Your task to perform on an android device: Clear all items from cart on costco. Image 0: 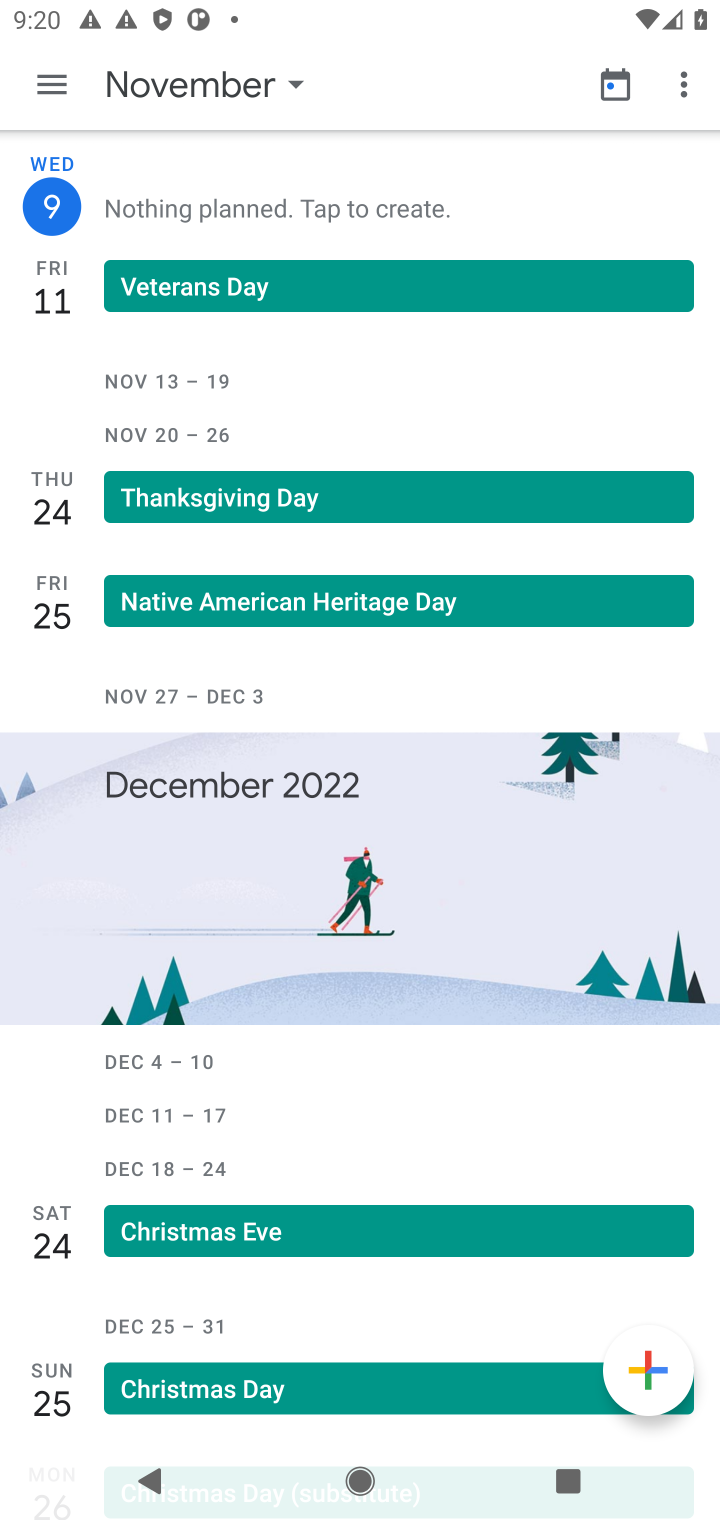
Step 0: press home button
Your task to perform on an android device: Clear all items from cart on costco. Image 1: 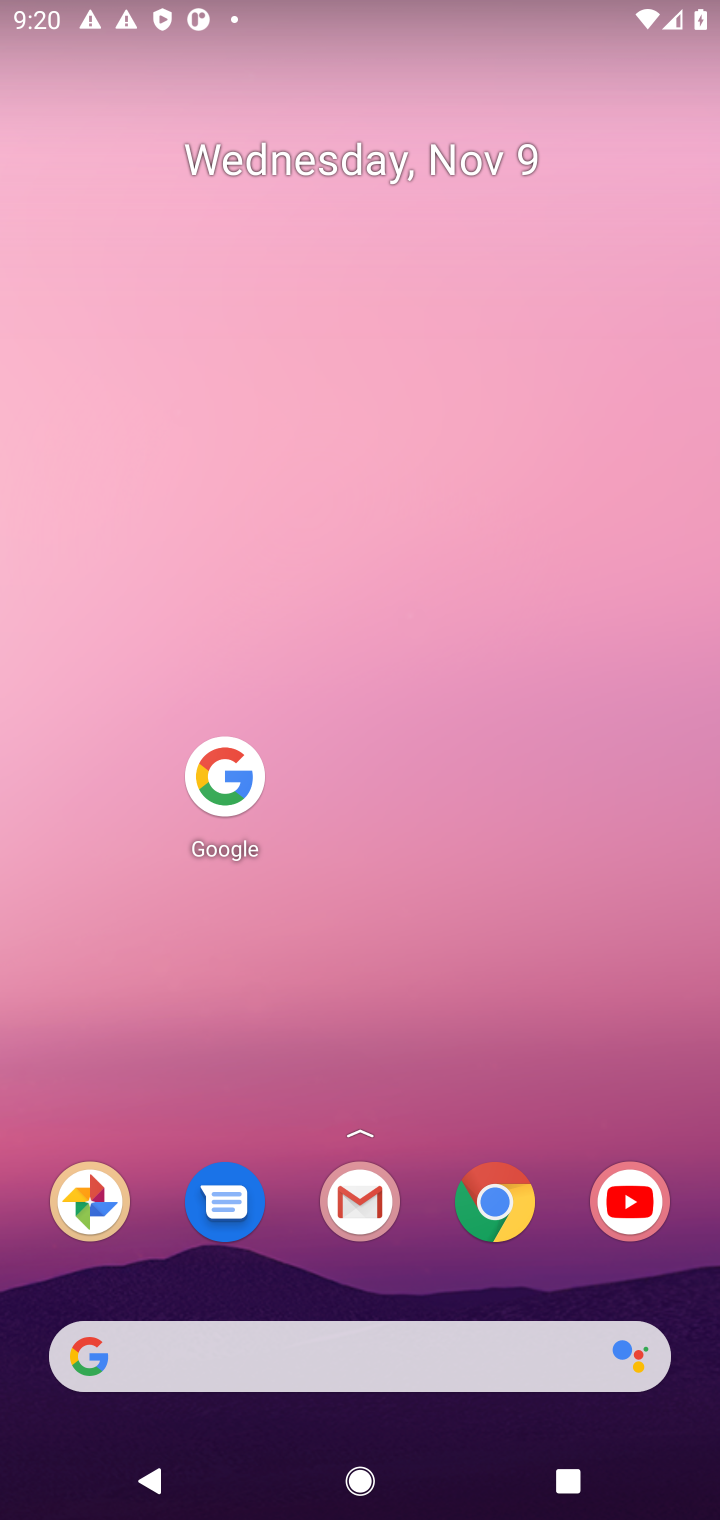
Step 1: click (234, 774)
Your task to perform on an android device: Clear all items from cart on costco. Image 2: 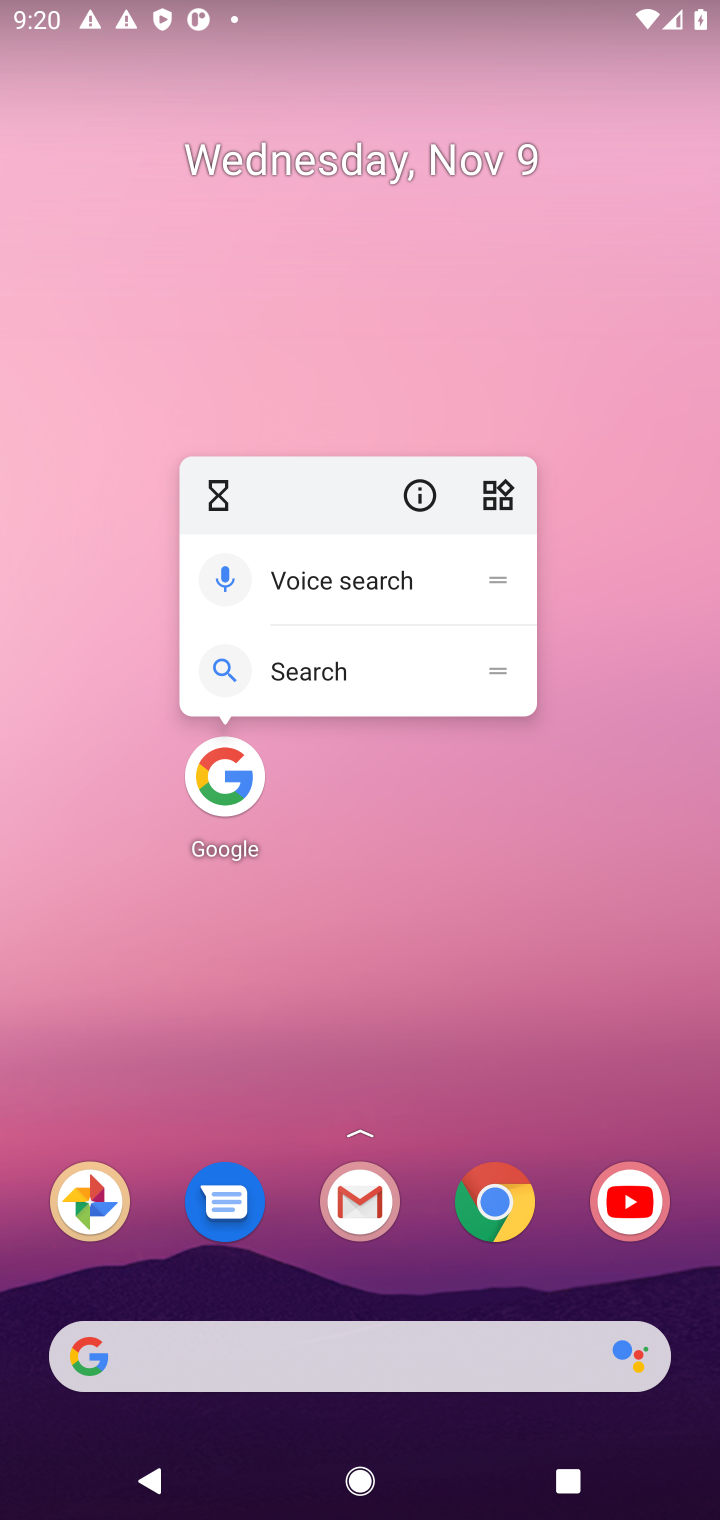
Step 2: click (213, 795)
Your task to perform on an android device: Clear all items from cart on costco. Image 3: 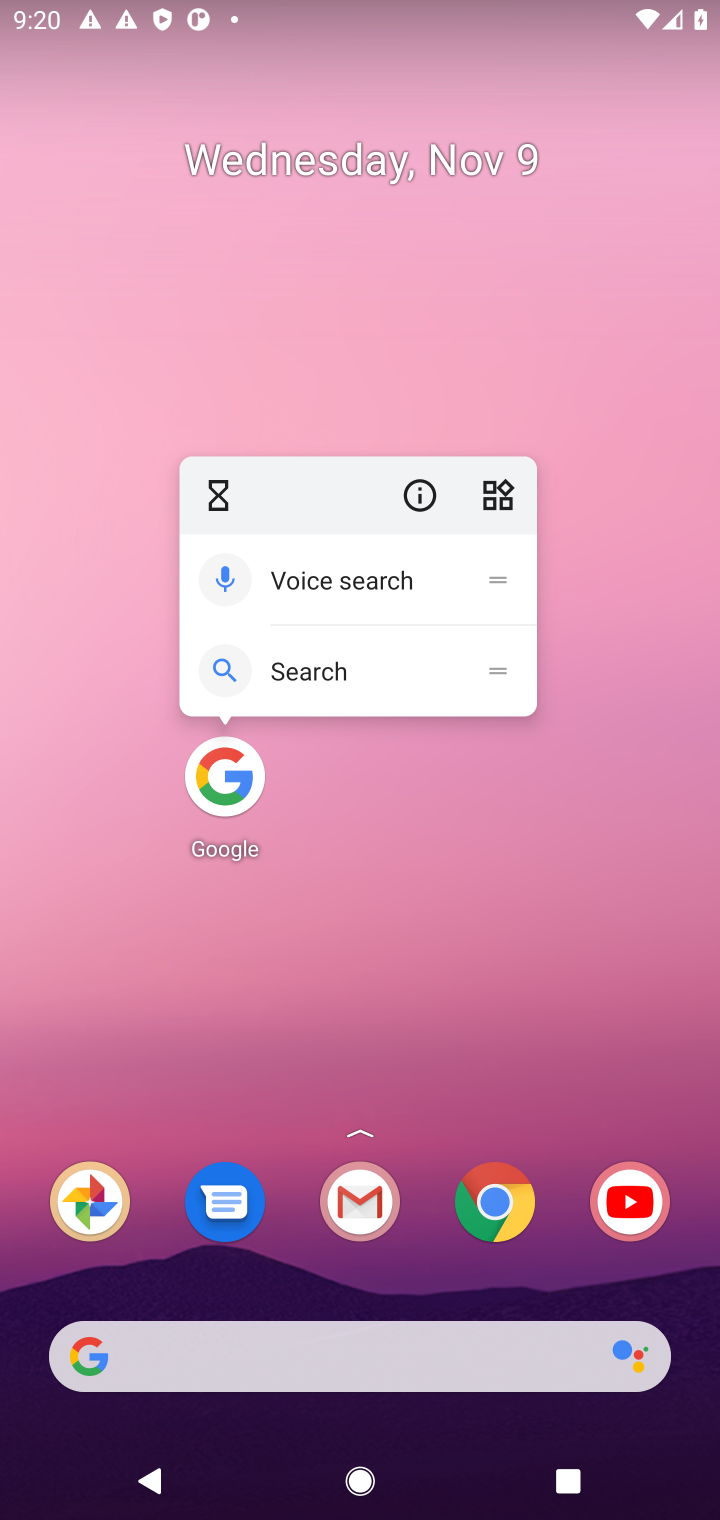
Step 3: click (213, 797)
Your task to perform on an android device: Clear all items from cart on costco. Image 4: 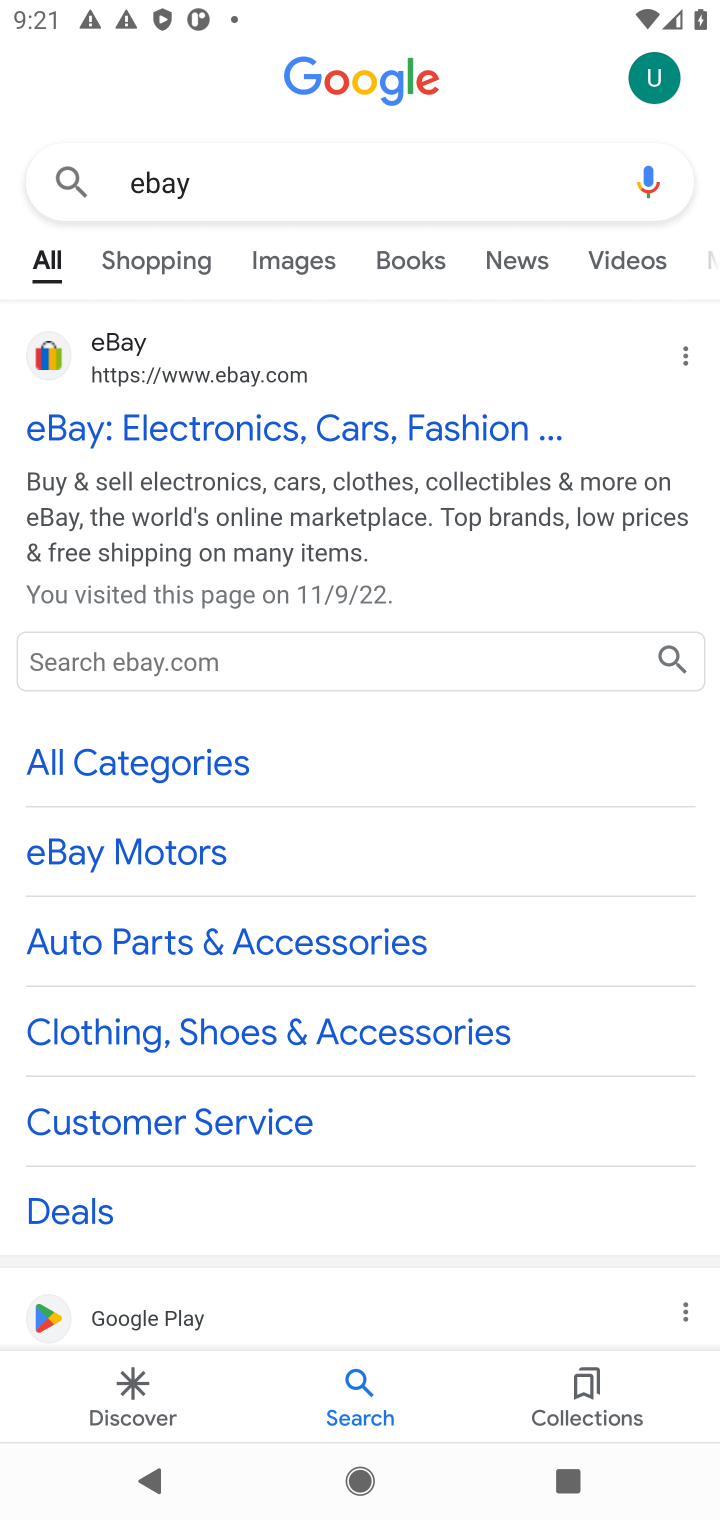
Step 4: click (262, 186)
Your task to perform on an android device: Clear all items from cart on costco. Image 5: 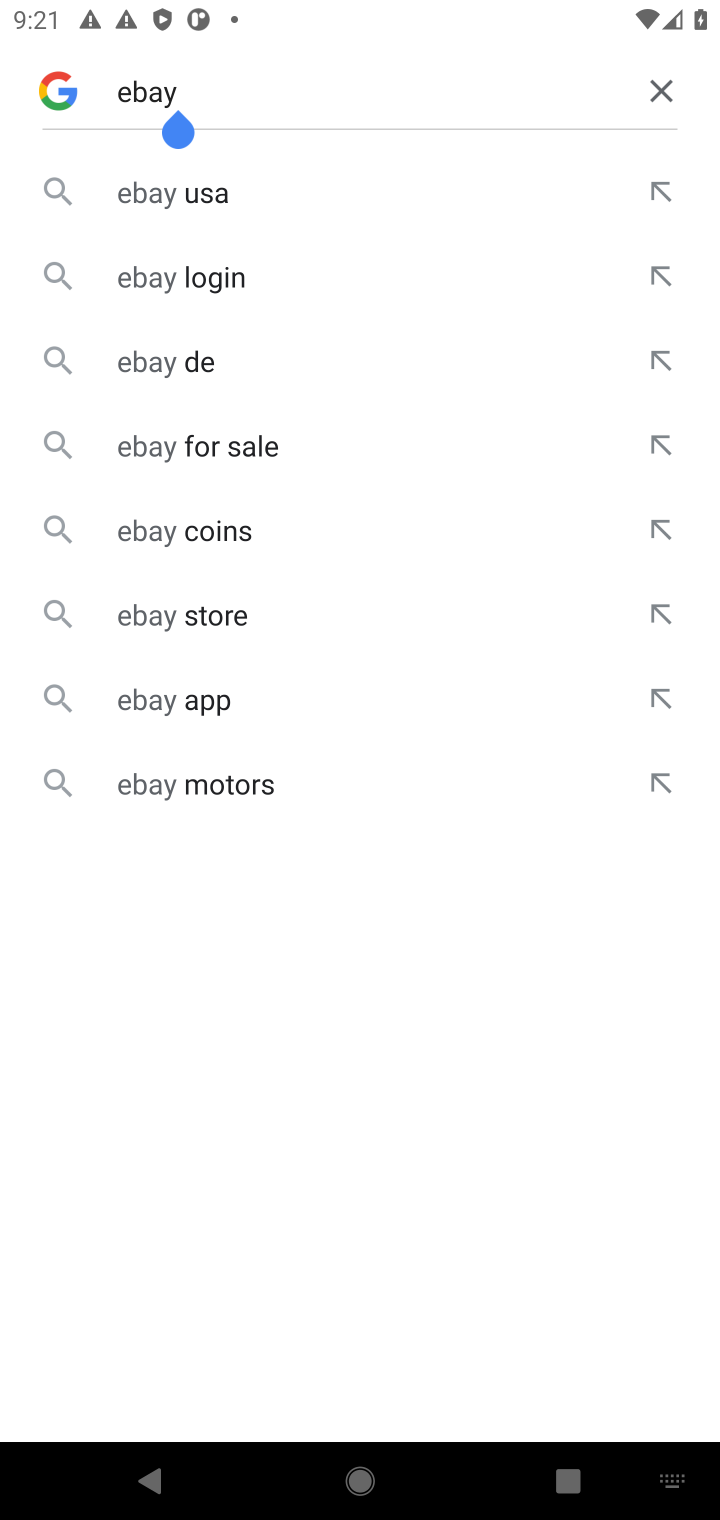
Step 5: click (654, 88)
Your task to perform on an android device: Clear all items from cart on costco. Image 6: 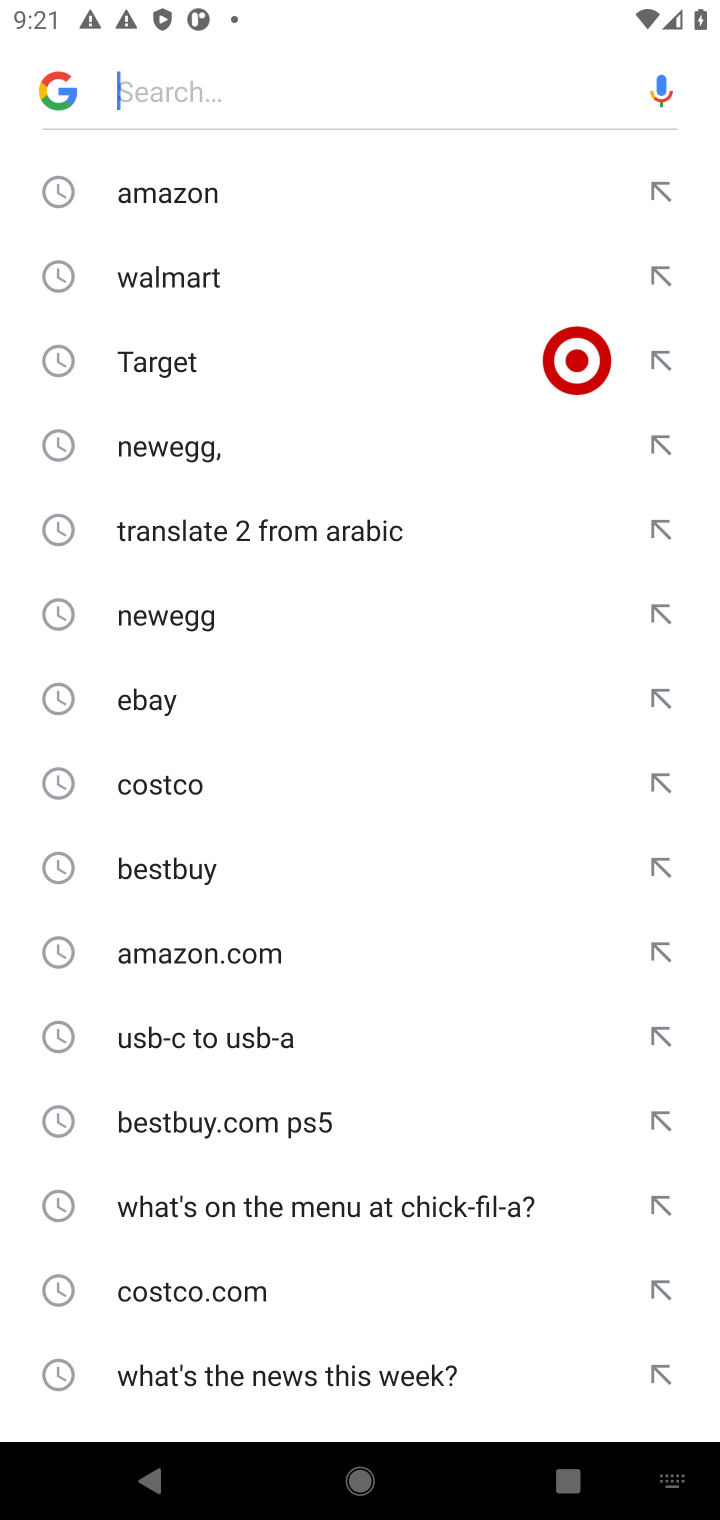
Step 6: click (138, 775)
Your task to perform on an android device: Clear all items from cart on costco. Image 7: 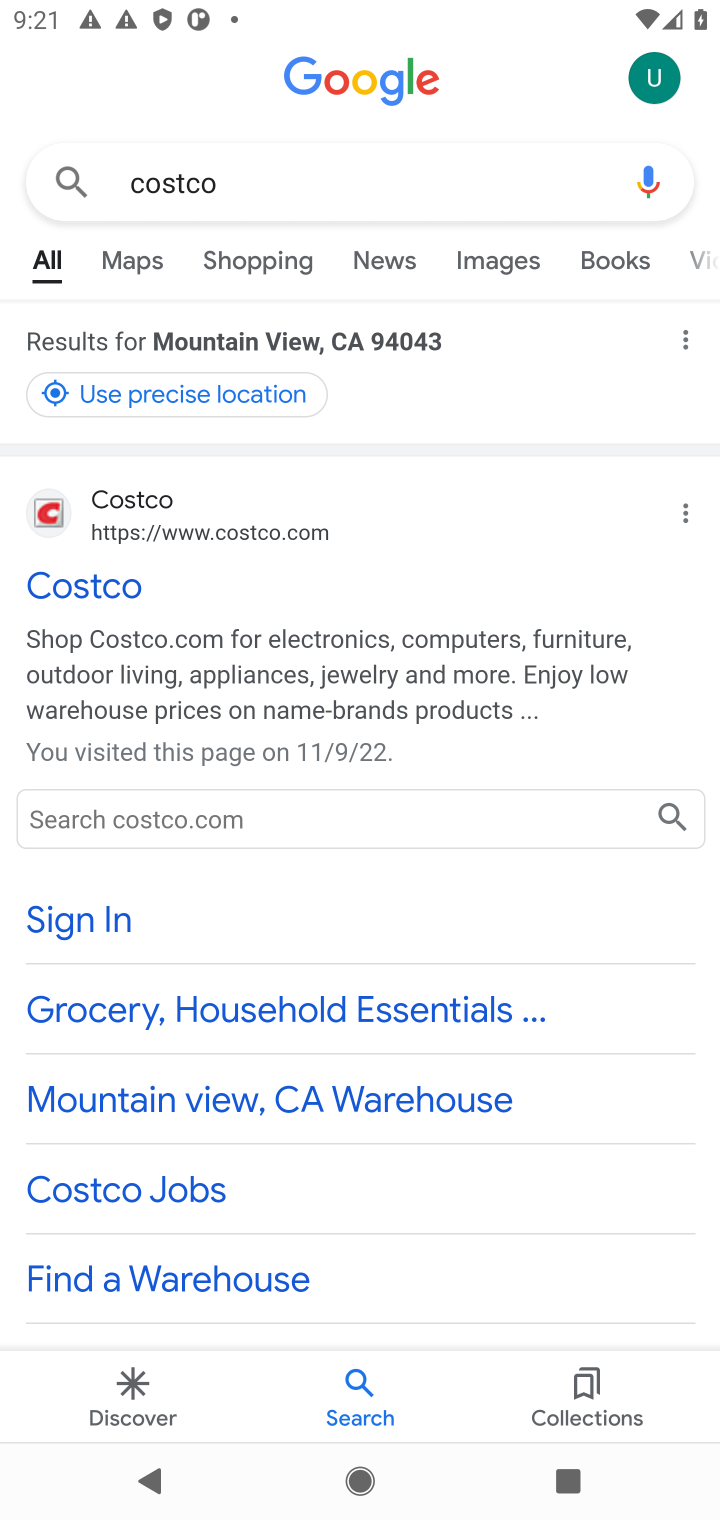
Step 7: click (90, 584)
Your task to perform on an android device: Clear all items from cart on costco. Image 8: 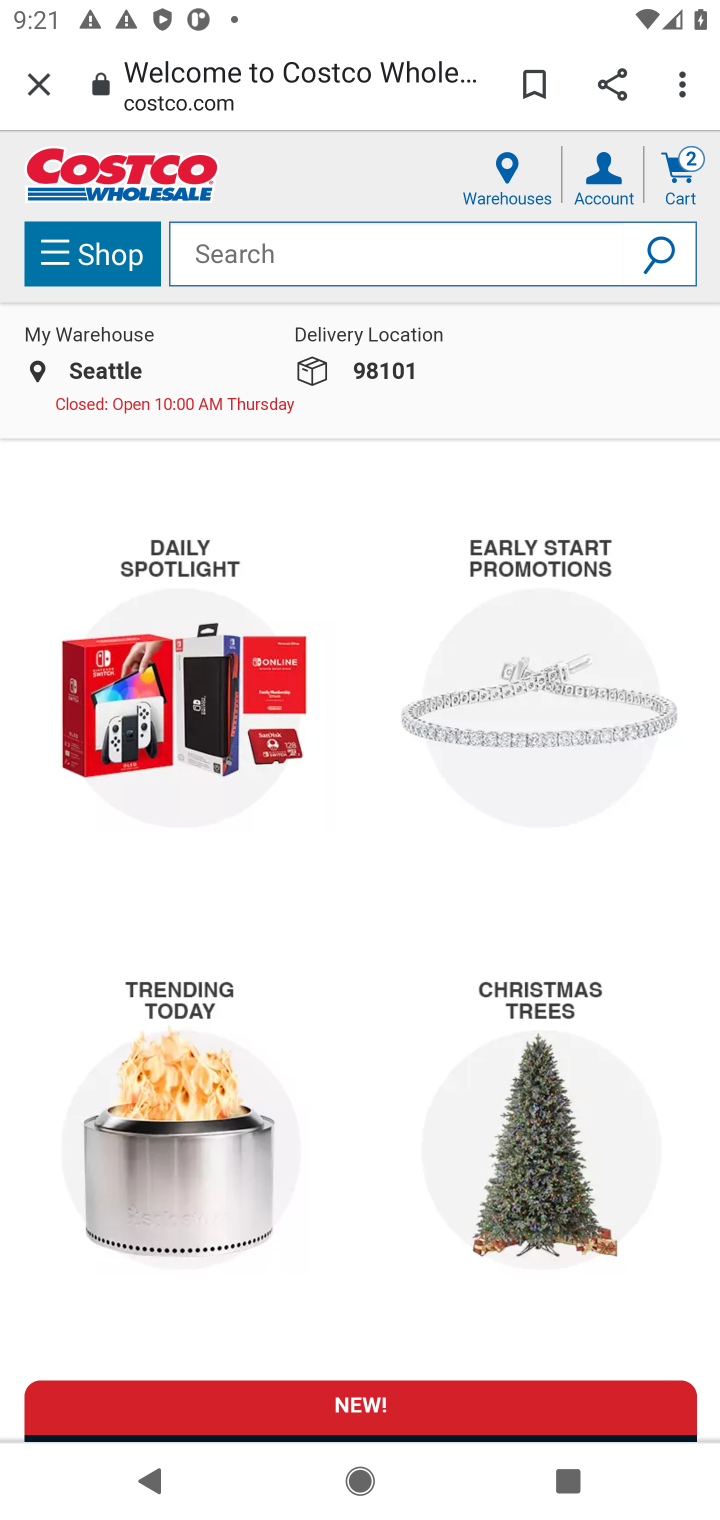
Step 8: click (682, 169)
Your task to perform on an android device: Clear all items from cart on costco. Image 9: 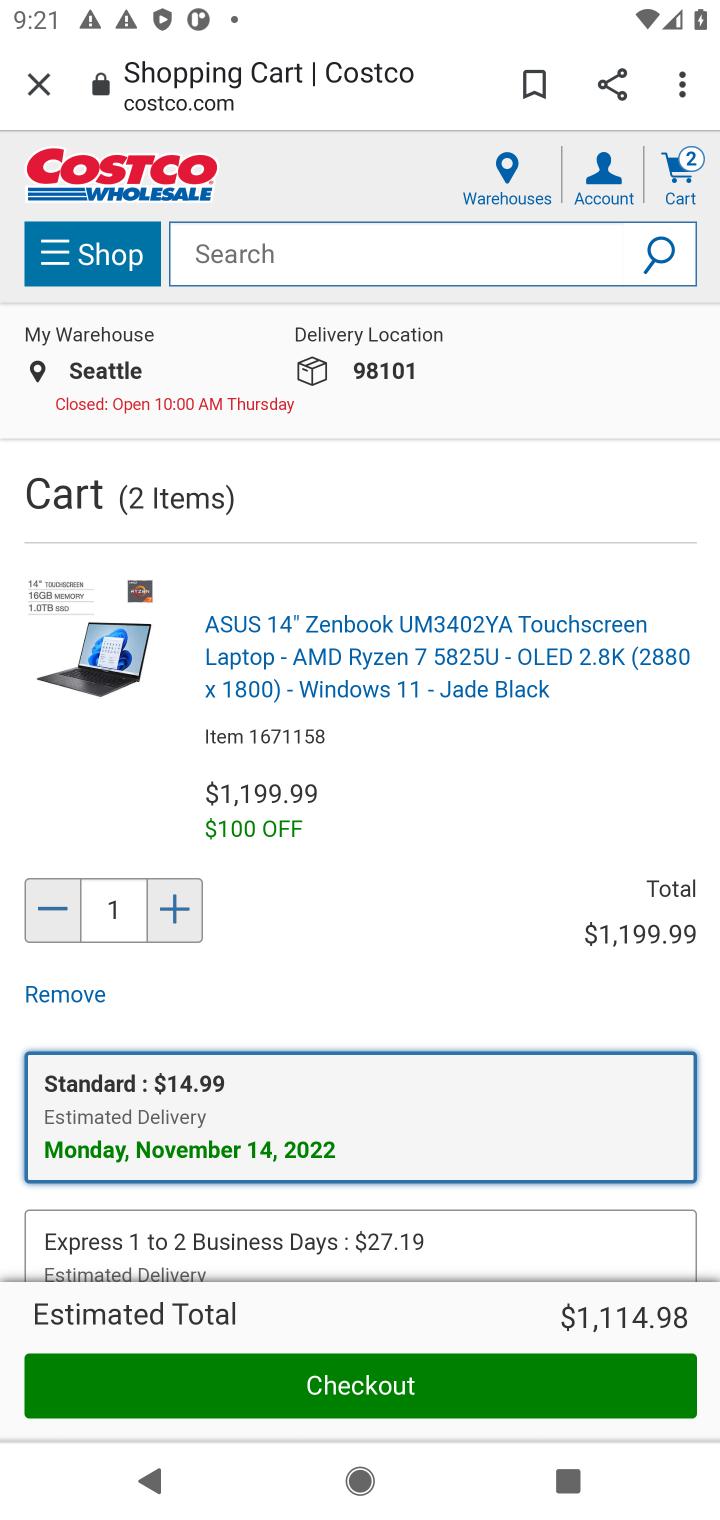
Step 9: click (30, 989)
Your task to perform on an android device: Clear all items from cart on costco. Image 10: 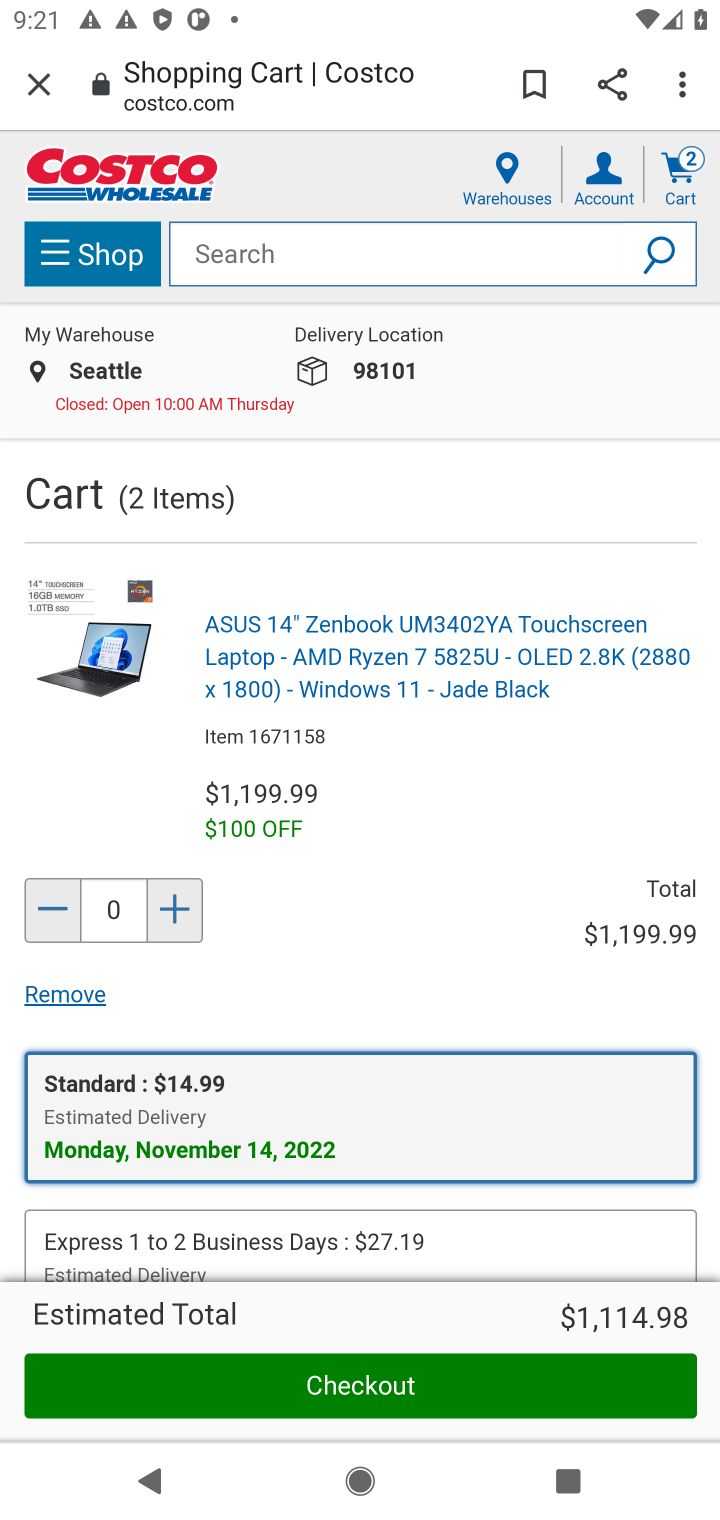
Step 10: click (55, 995)
Your task to perform on an android device: Clear all items from cart on costco. Image 11: 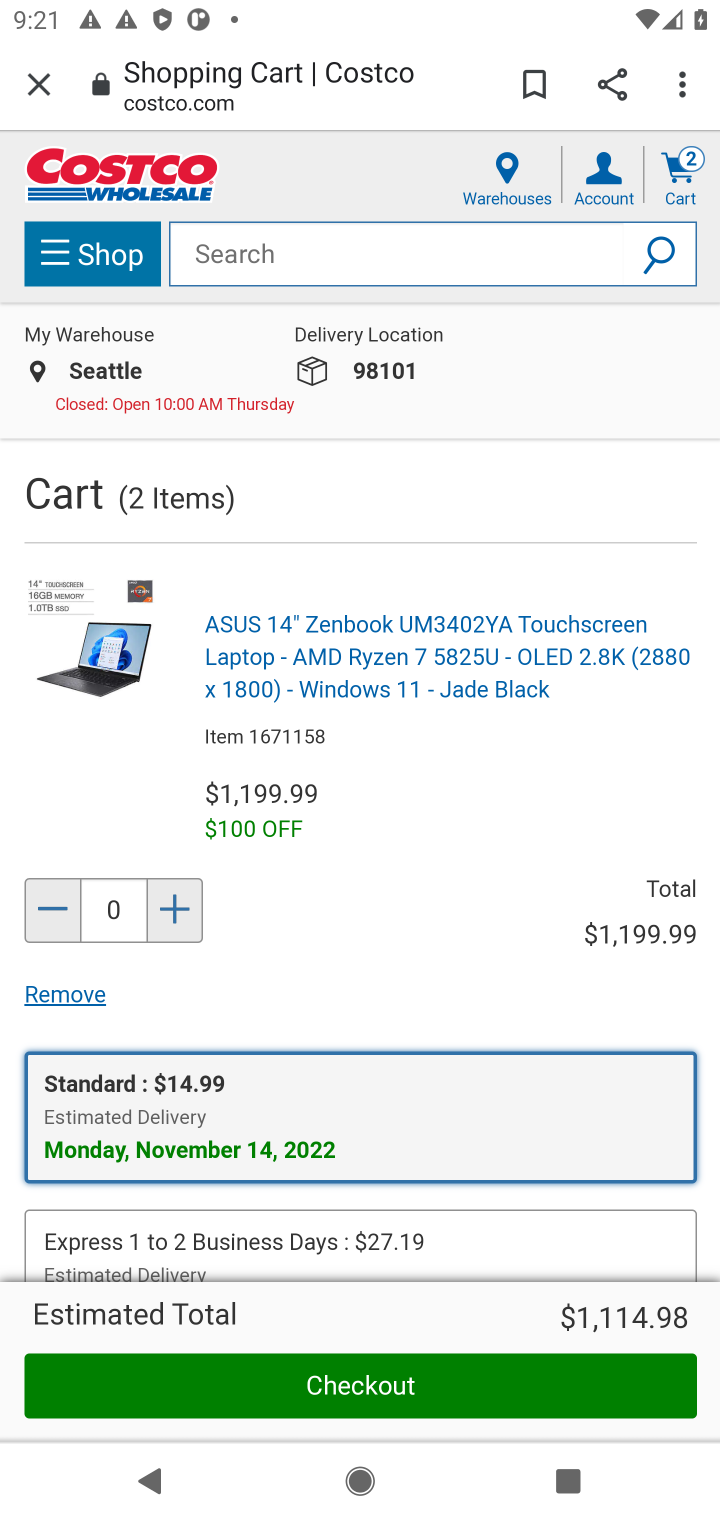
Step 11: click (79, 995)
Your task to perform on an android device: Clear all items from cart on costco. Image 12: 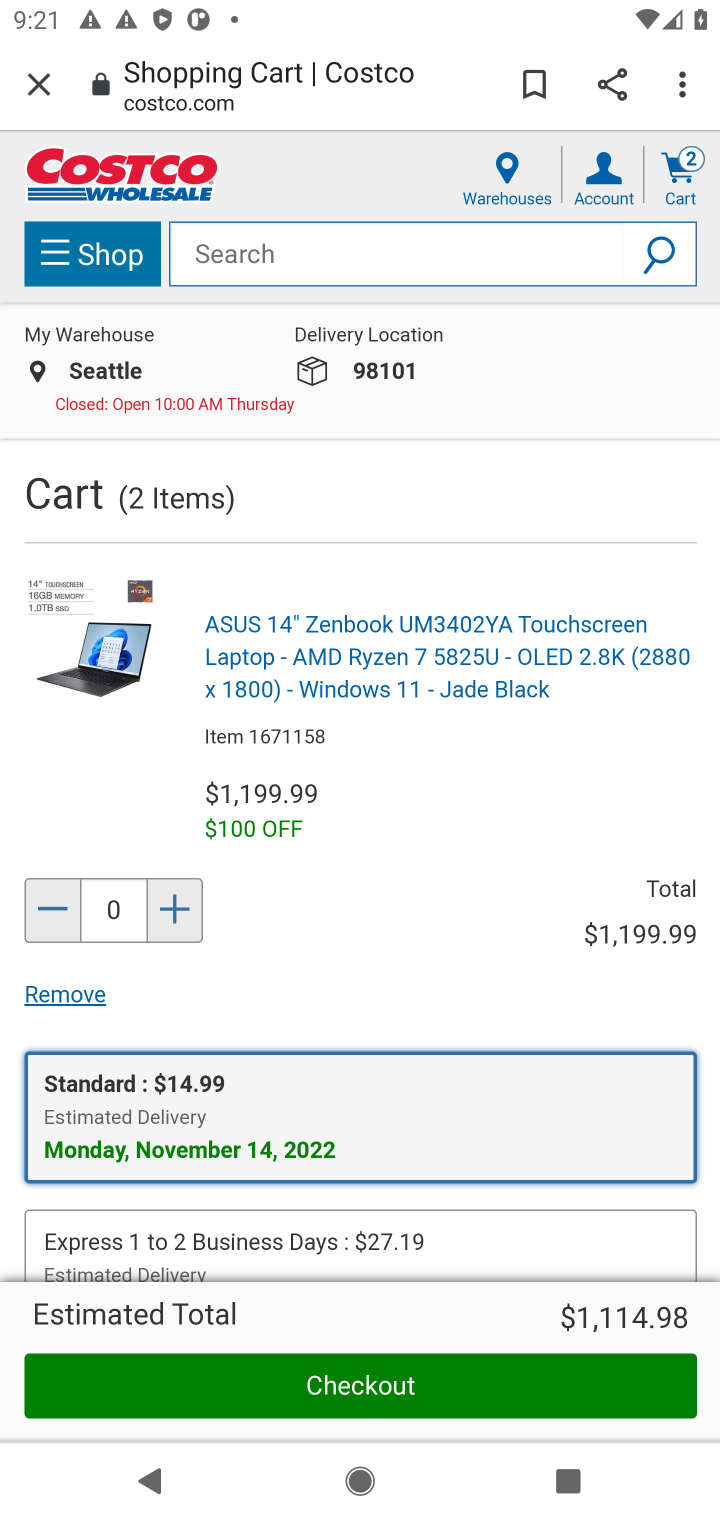
Step 12: click (54, 993)
Your task to perform on an android device: Clear all items from cart on costco. Image 13: 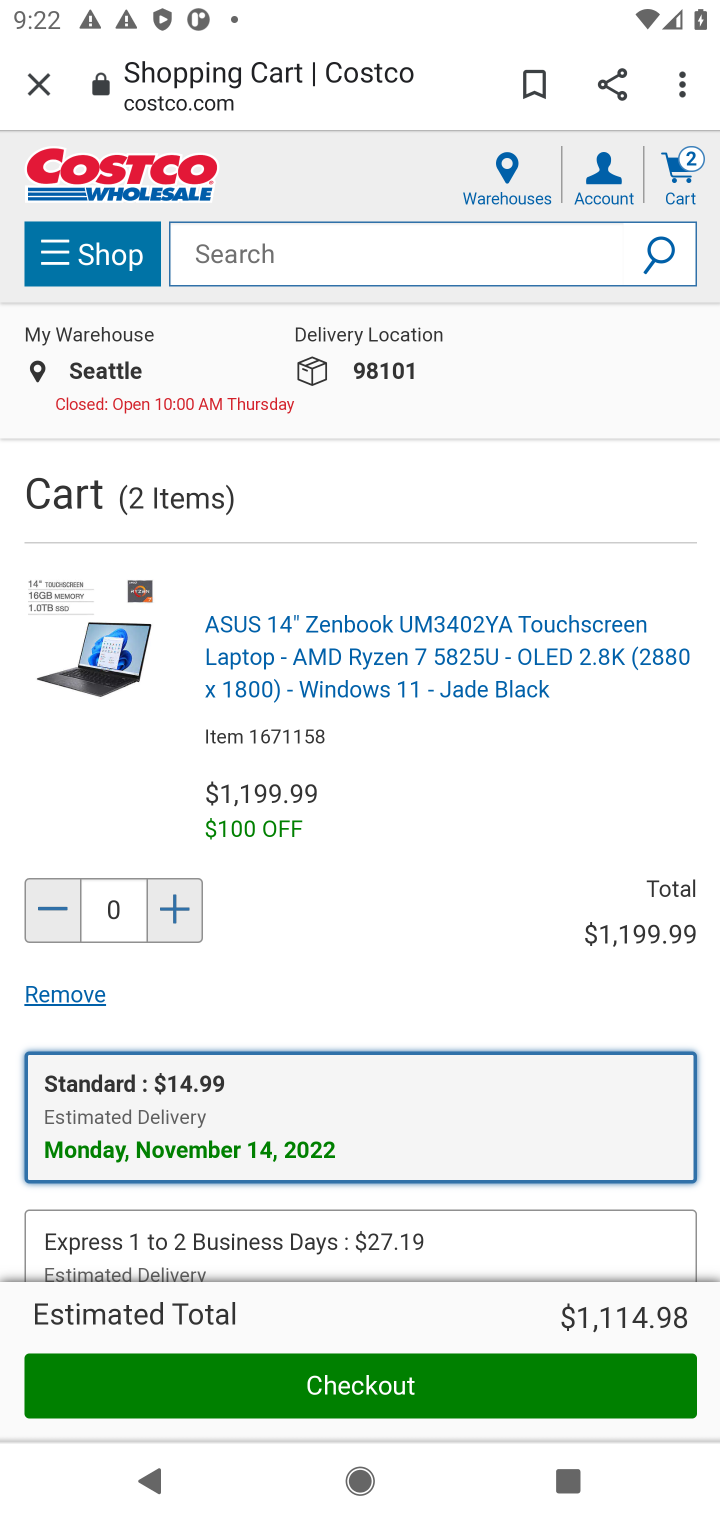
Step 13: click (75, 996)
Your task to perform on an android device: Clear all items from cart on costco. Image 14: 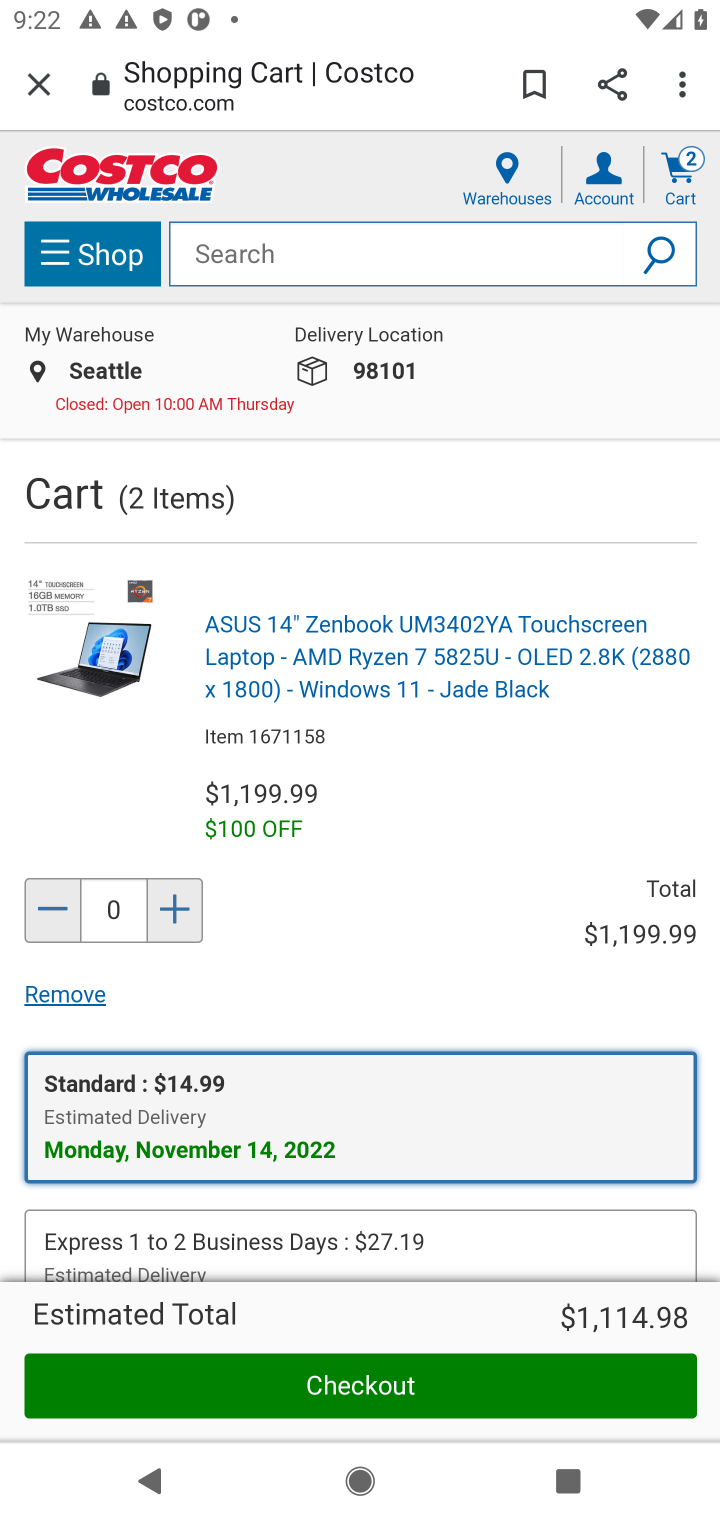
Step 14: click (51, 988)
Your task to perform on an android device: Clear all items from cart on costco. Image 15: 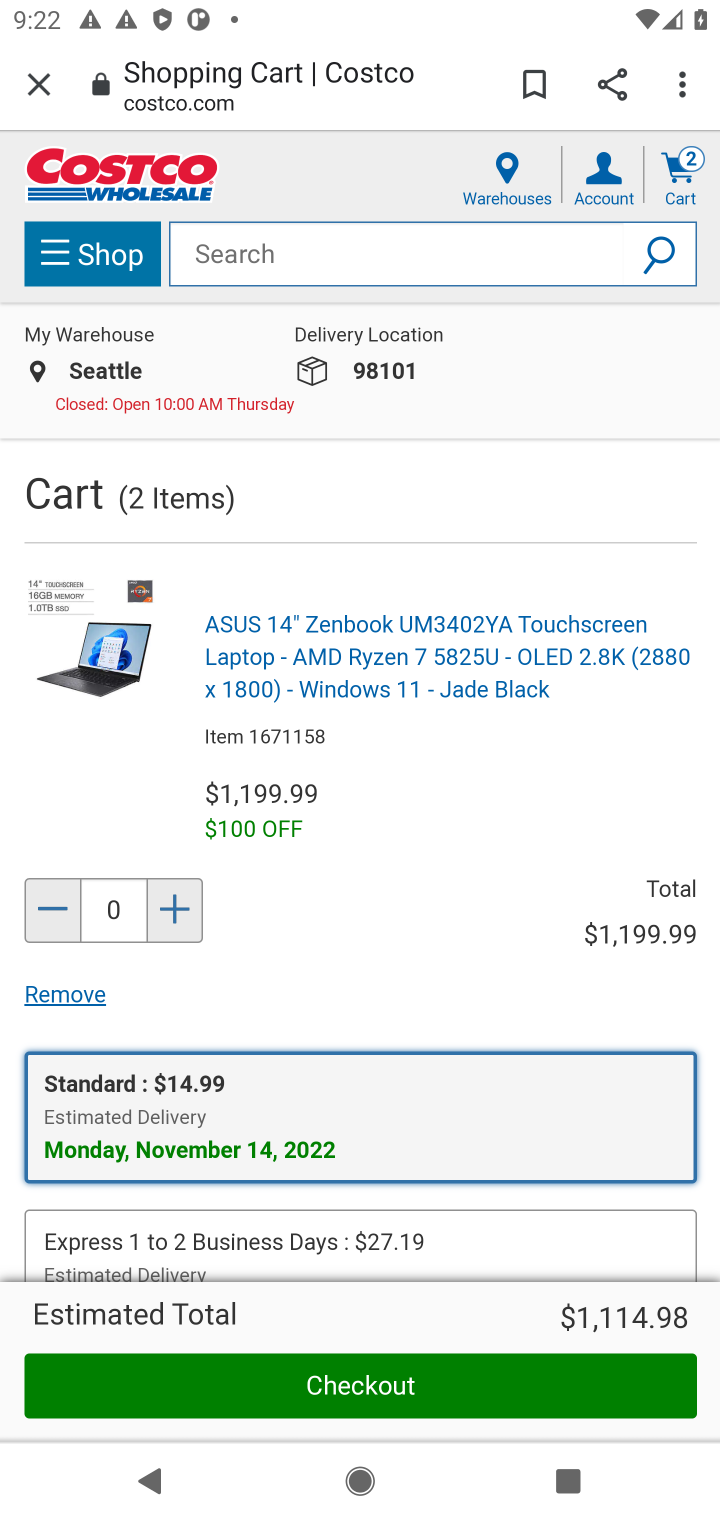
Step 15: click (51, 988)
Your task to perform on an android device: Clear all items from cart on costco. Image 16: 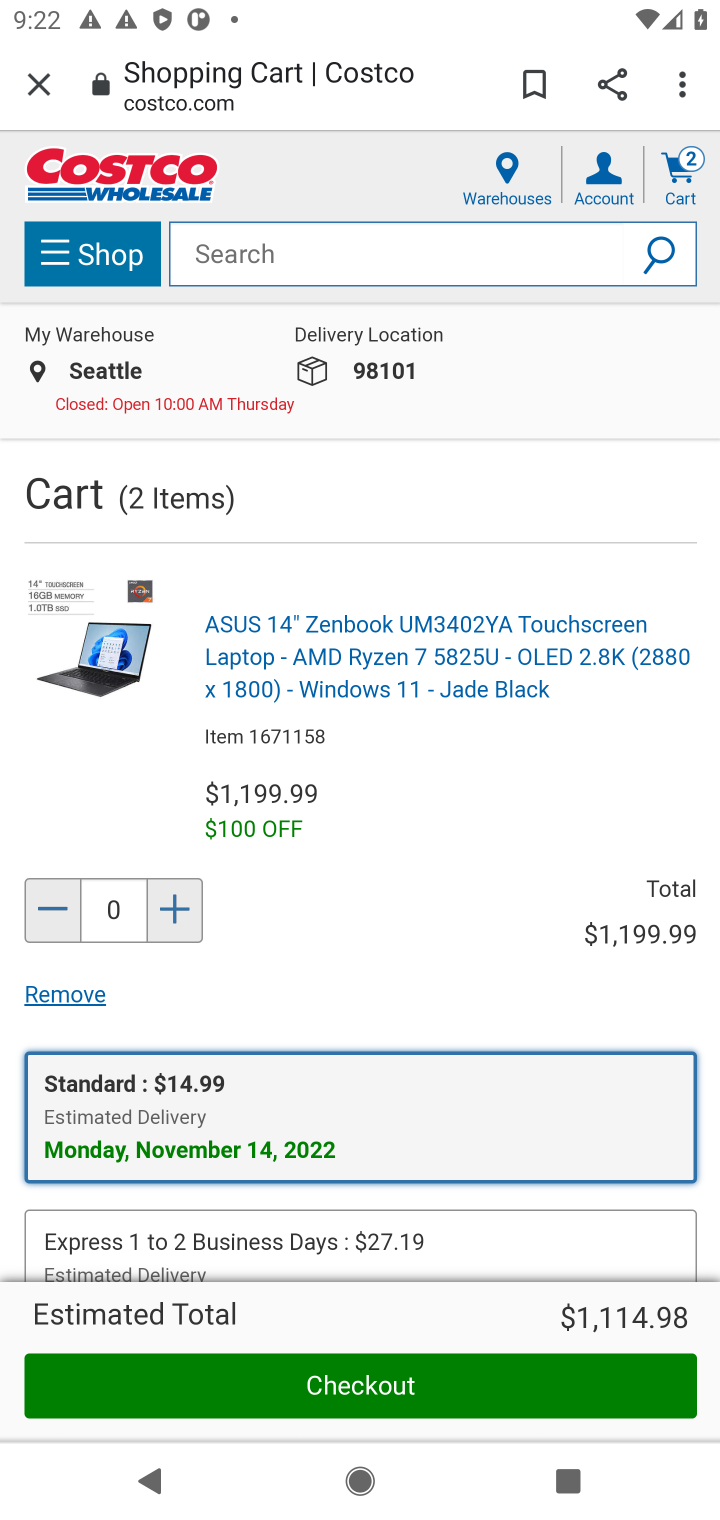
Step 16: click (51, 995)
Your task to perform on an android device: Clear all items from cart on costco. Image 17: 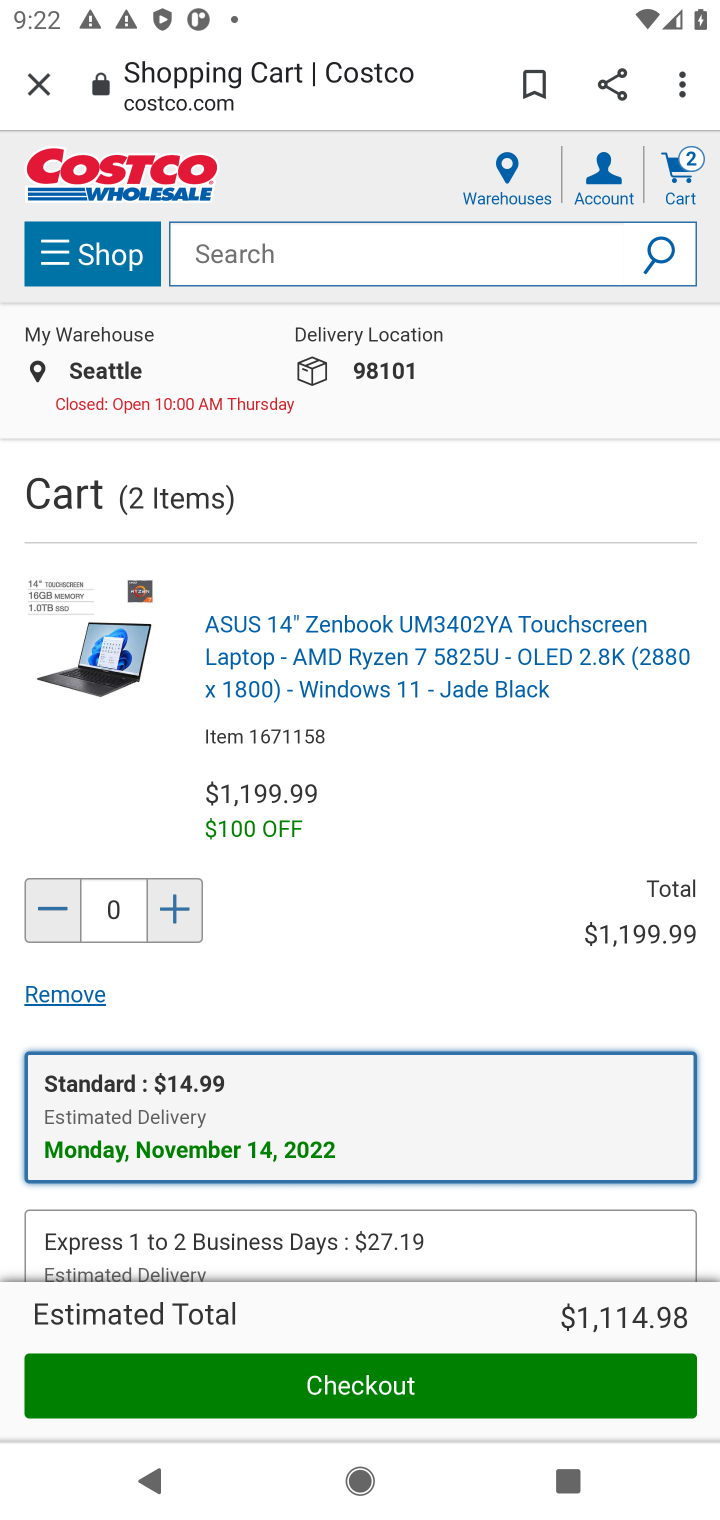
Step 17: click (57, 994)
Your task to perform on an android device: Clear all items from cart on costco. Image 18: 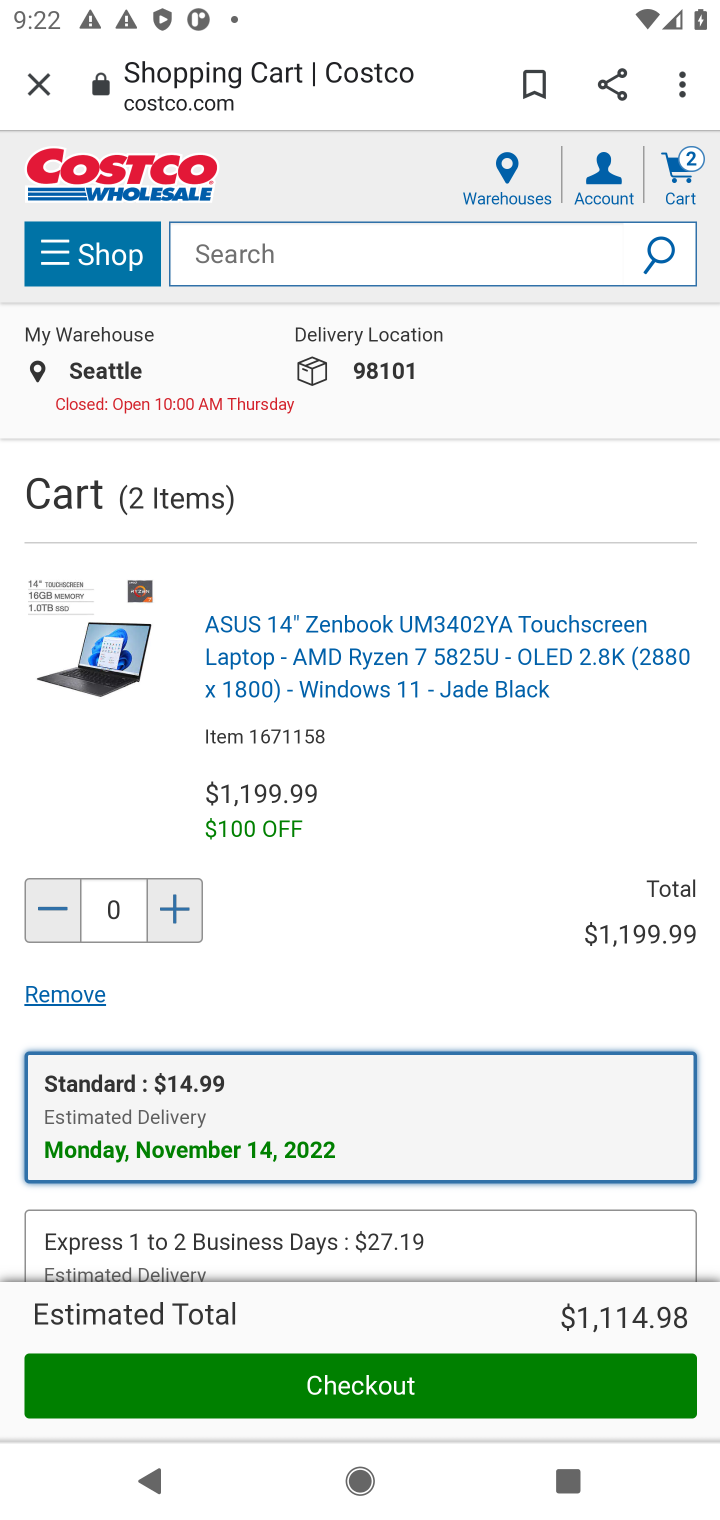
Step 18: click (83, 996)
Your task to perform on an android device: Clear all items from cart on costco. Image 19: 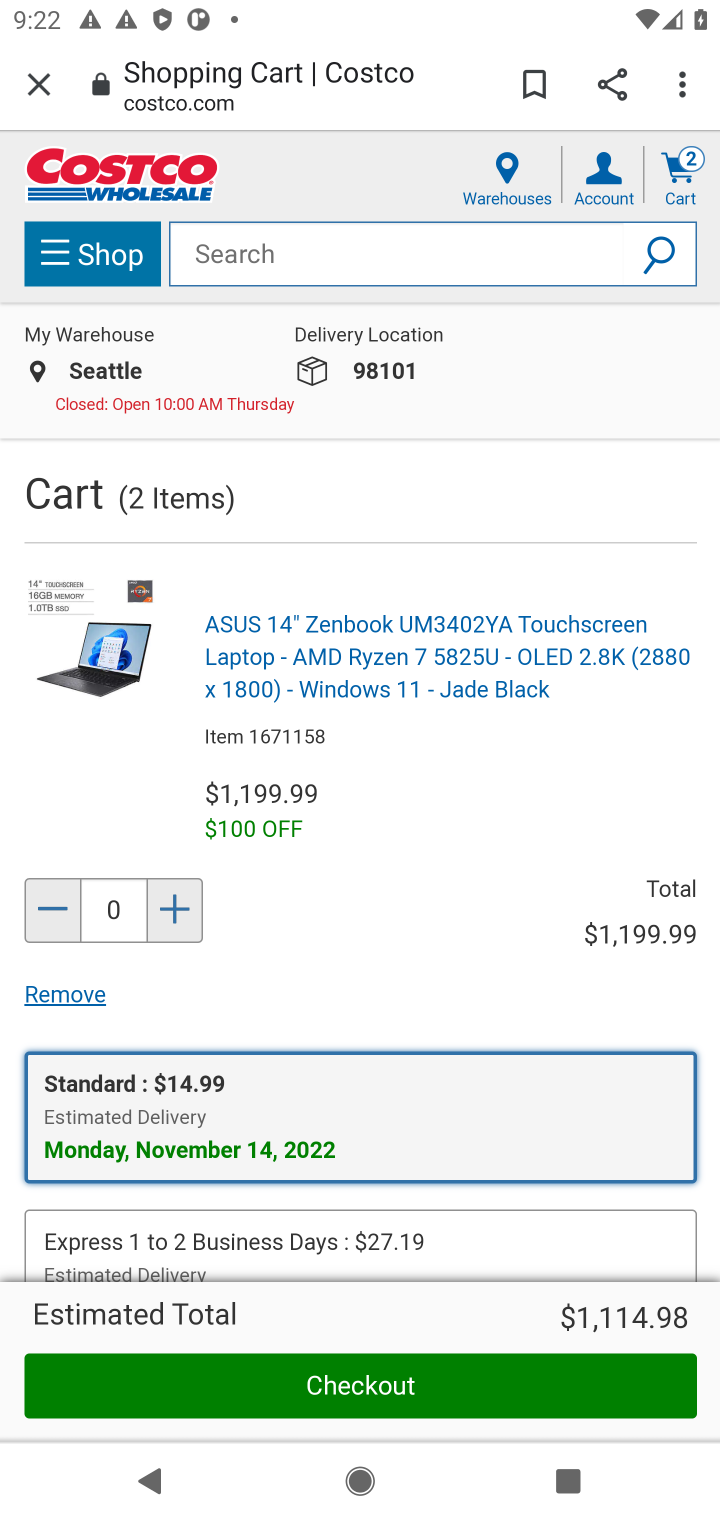
Step 19: click (68, 989)
Your task to perform on an android device: Clear all items from cart on costco. Image 20: 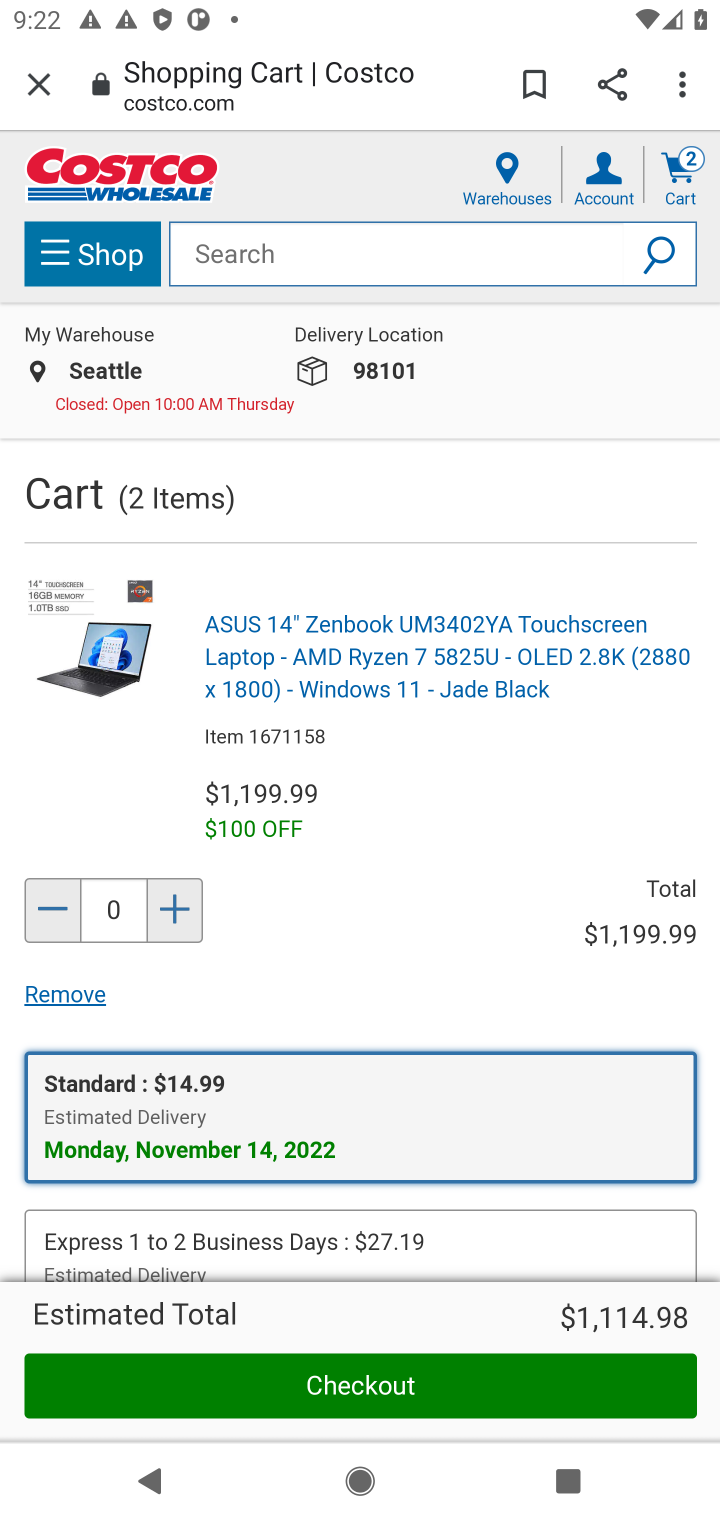
Step 20: drag from (150, 997) to (456, 400)
Your task to perform on an android device: Clear all items from cart on costco. Image 21: 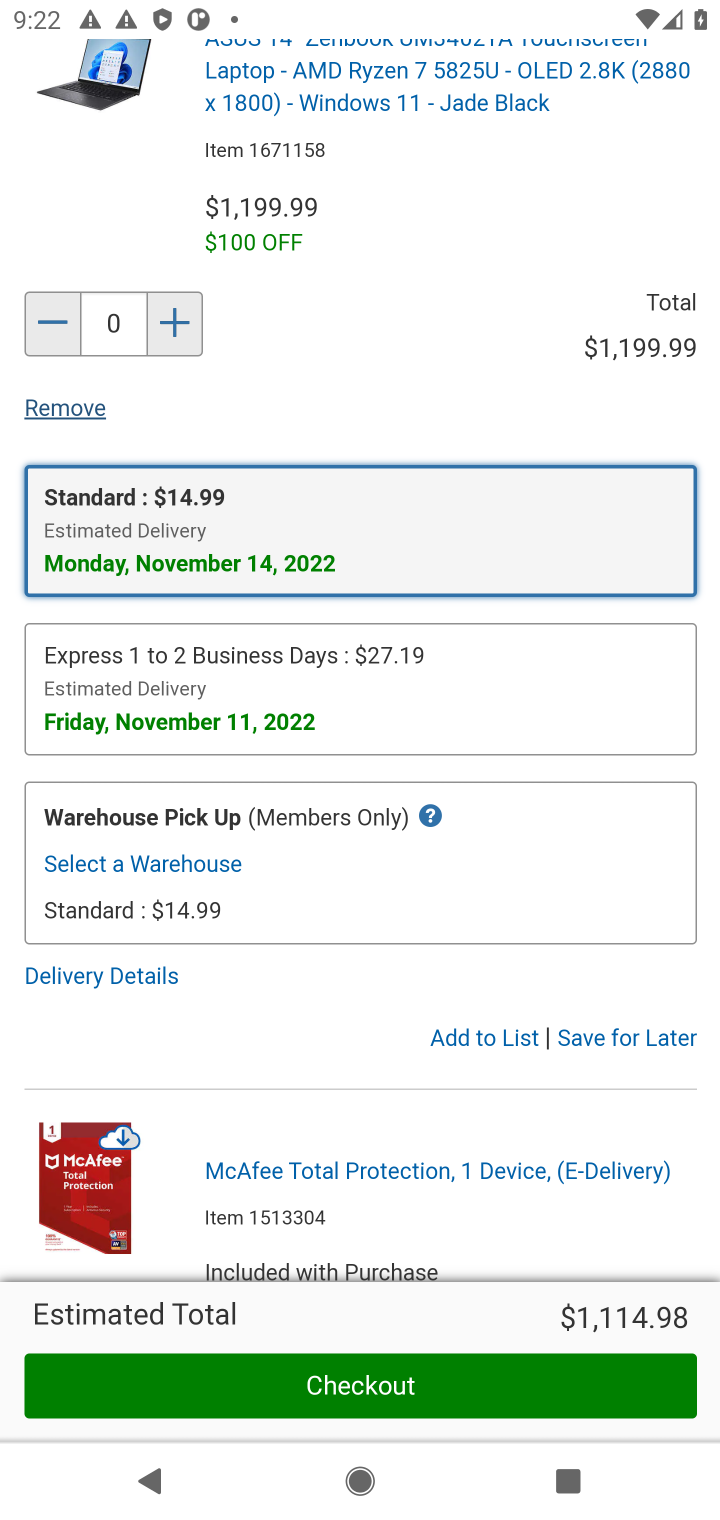
Step 21: click (58, 406)
Your task to perform on an android device: Clear all items from cart on costco. Image 22: 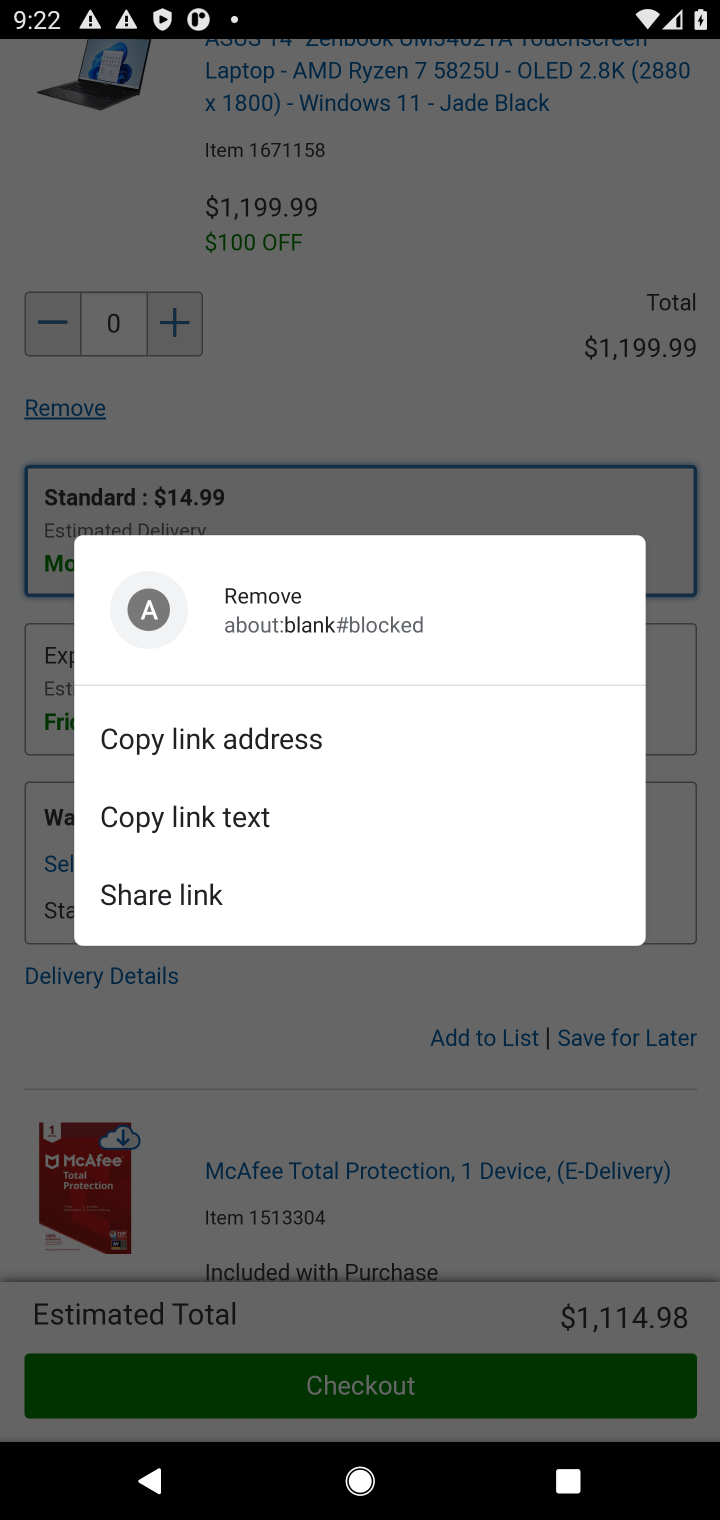
Step 22: click (58, 406)
Your task to perform on an android device: Clear all items from cart on costco. Image 23: 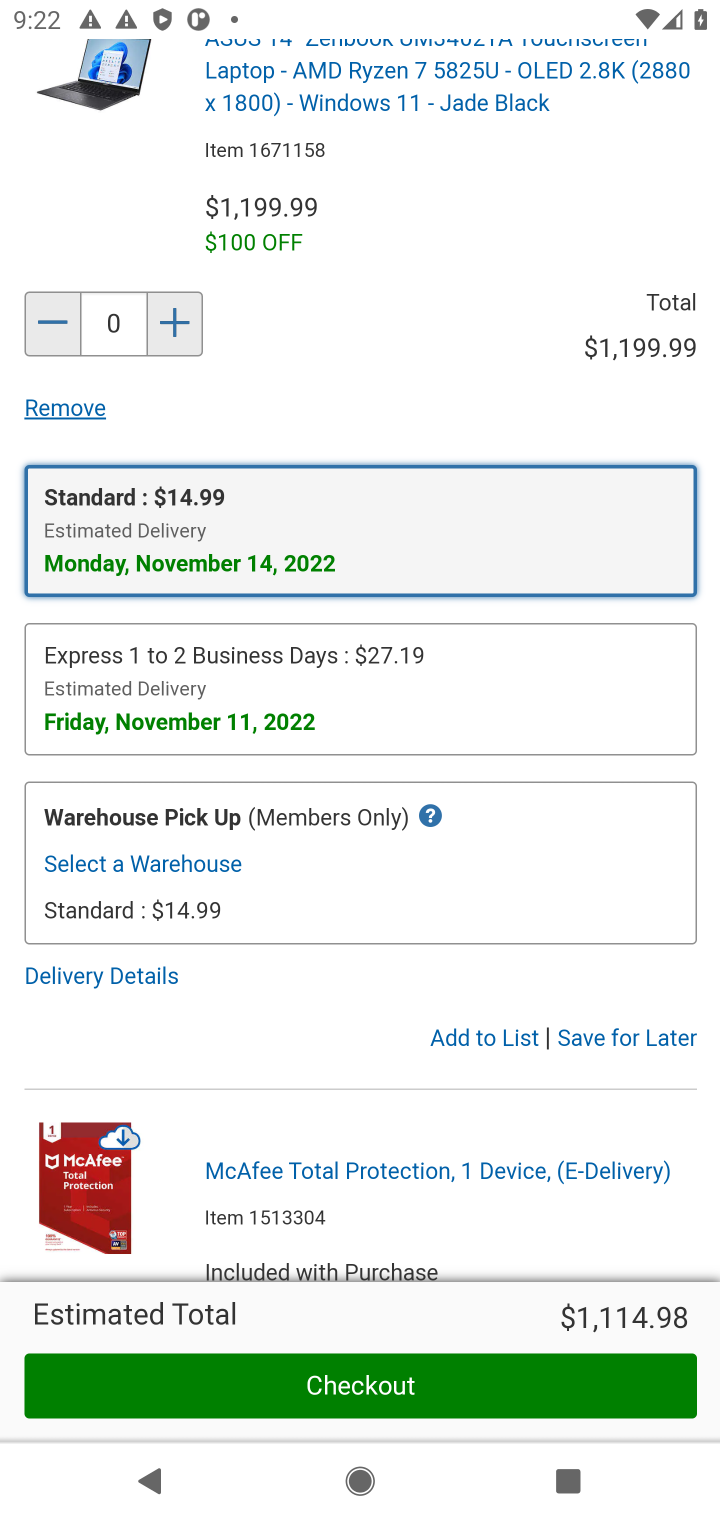
Step 23: click (59, 411)
Your task to perform on an android device: Clear all items from cart on costco. Image 24: 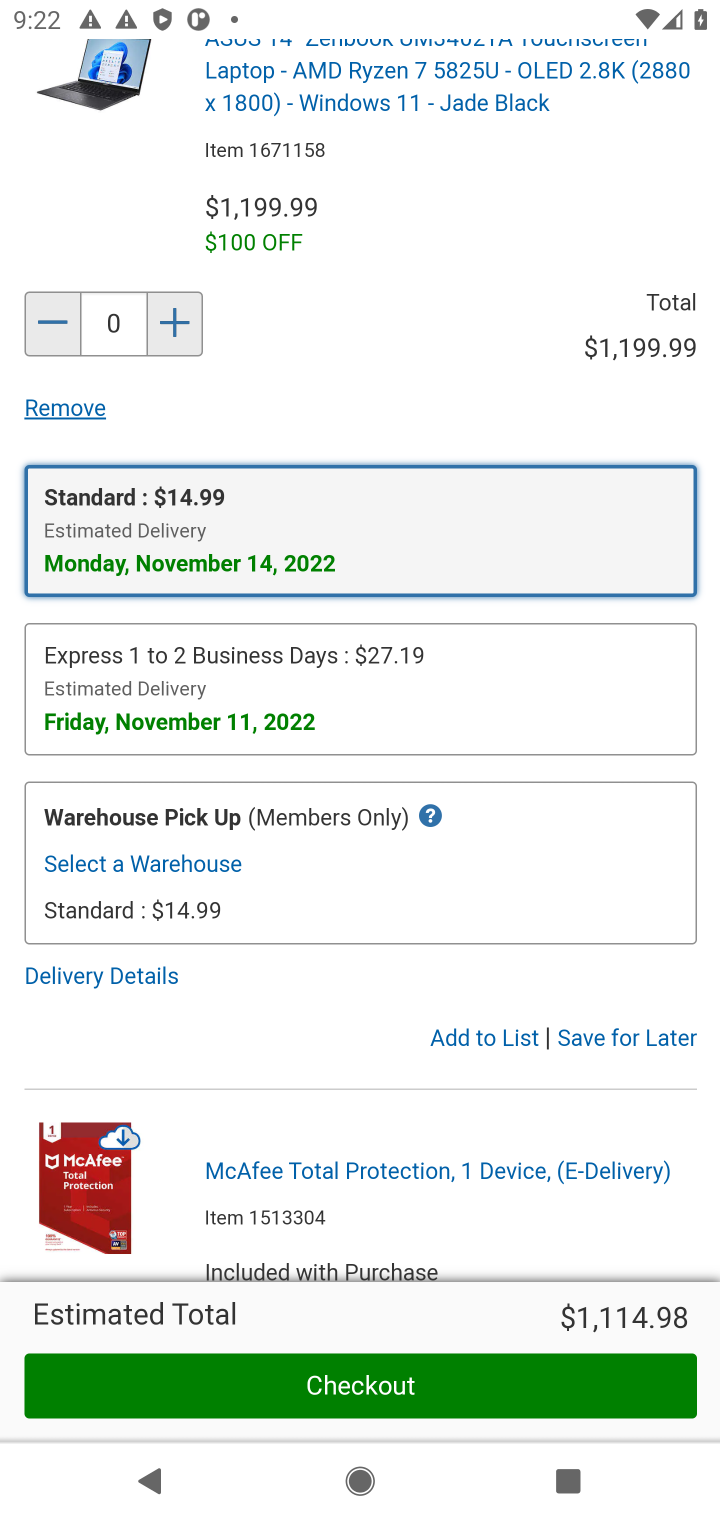
Step 24: click (79, 402)
Your task to perform on an android device: Clear all items from cart on costco. Image 25: 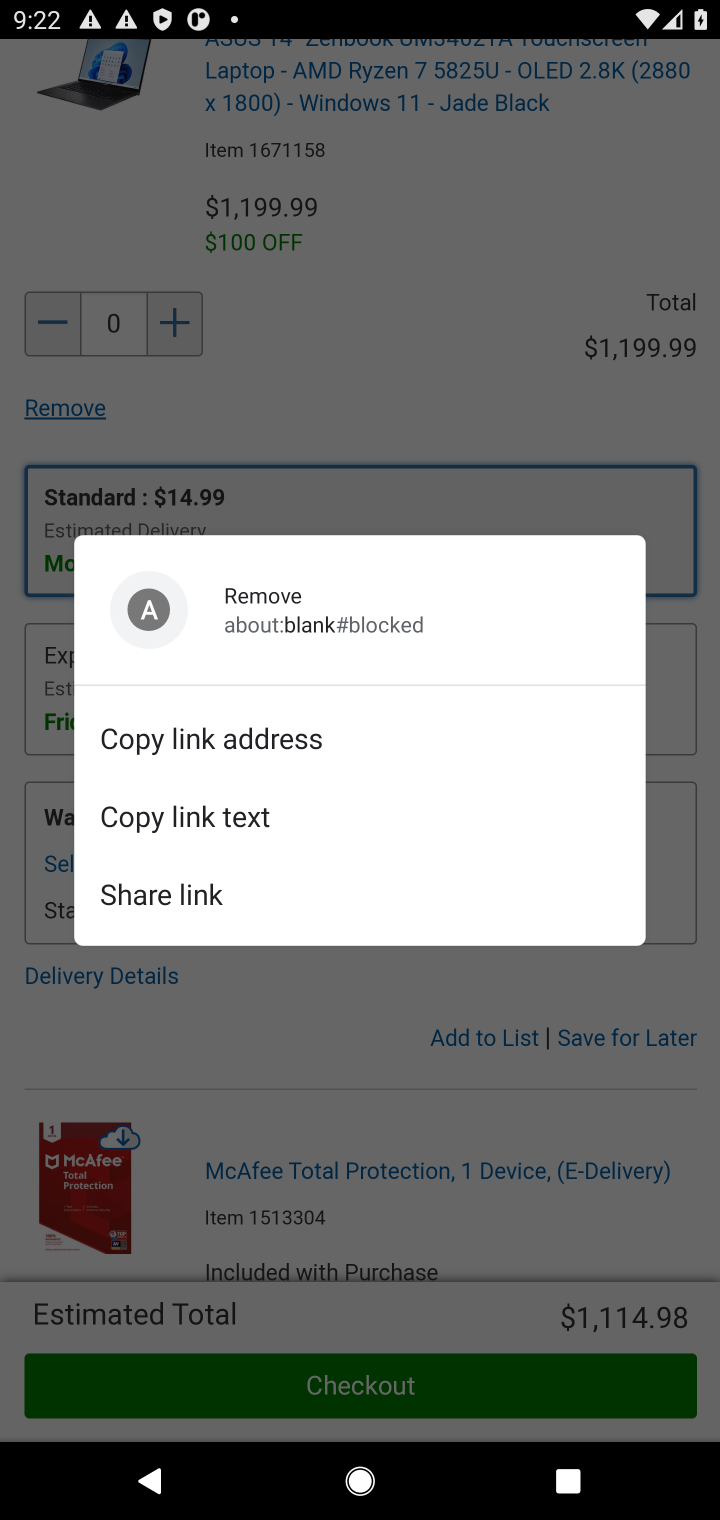
Step 25: click (371, 353)
Your task to perform on an android device: Clear all items from cart on costco. Image 26: 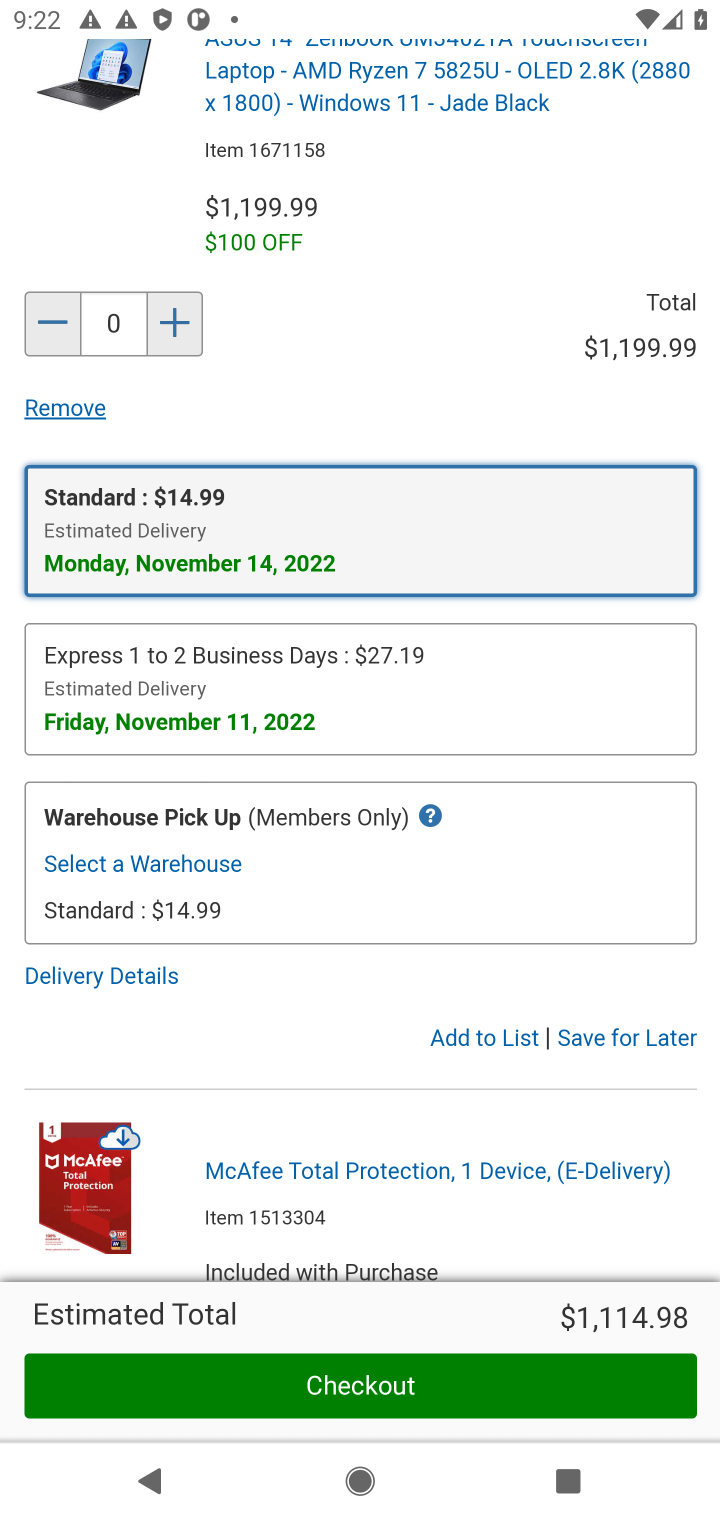
Step 26: task complete